Your task to perform on an android device: Search for logitech g903 on walmart.com, select the first entry, and add it to the cart. Image 0: 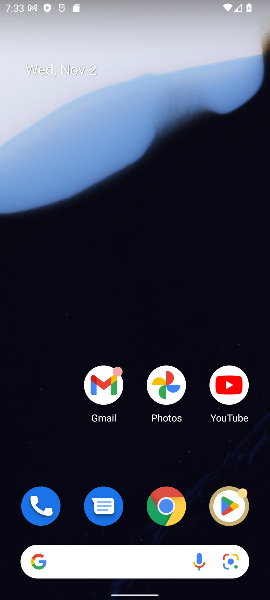
Step 0: click (84, 559)
Your task to perform on an android device: Search for logitech g903 on walmart.com, select the first entry, and add it to the cart. Image 1: 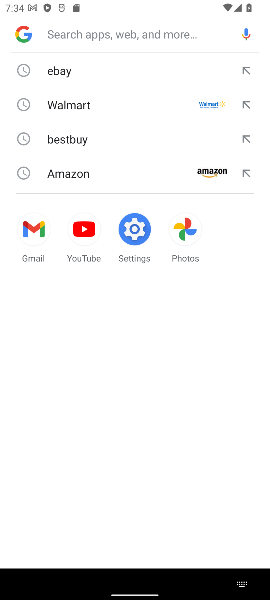
Step 1: type "walmart.com"
Your task to perform on an android device: Search for logitech g903 on walmart.com, select the first entry, and add it to the cart. Image 2: 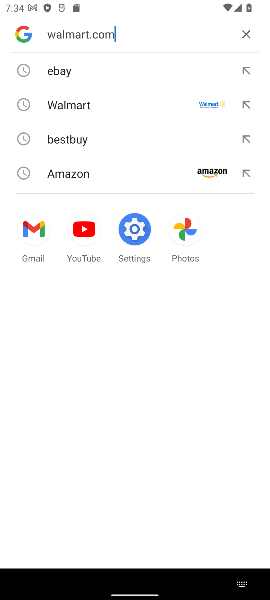
Step 2: type ""
Your task to perform on an android device: Search for logitech g903 on walmart.com, select the first entry, and add it to the cart. Image 3: 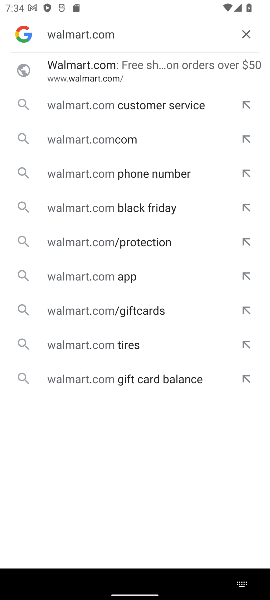
Step 3: press enter
Your task to perform on an android device: Search for logitech g903 on walmart.com, select the first entry, and add it to the cart. Image 4: 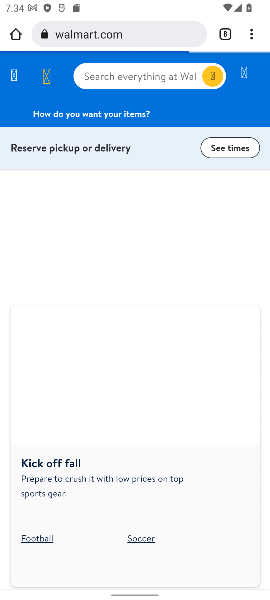
Step 4: press enter
Your task to perform on an android device: Search for logitech g903 on walmart.com, select the first entry, and add it to the cart. Image 5: 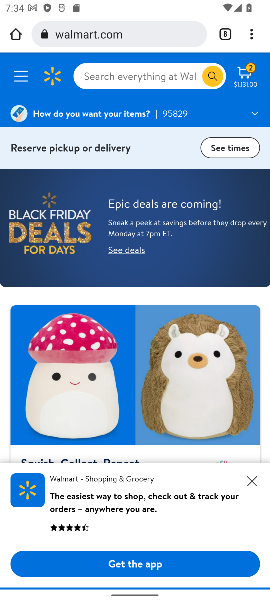
Step 5: click (248, 480)
Your task to perform on an android device: Search for logitech g903 on walmart.com, select the first entry, and add it to the cart. Image 6: 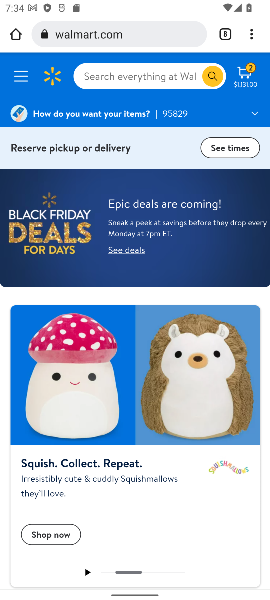
Step 6: click (123, 81)
Your task to perform on an android device: Search for logitech g903 on walmart.com, select the first entry, and add it to the cart. Image 7: 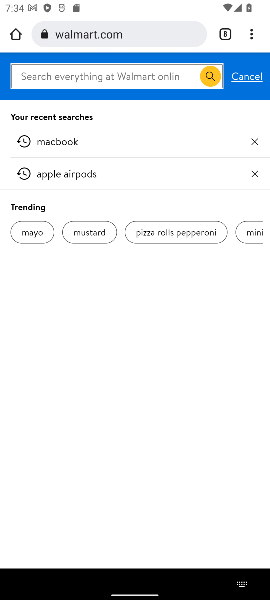
Step 7: type "logitech g903"
Your task to perform on an android device: Search for logitech g903 on walmart.com, select the first entry, and add it to the cart. Image 8: 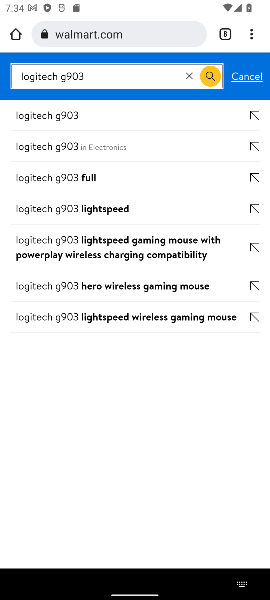
Step 8: press enter
Your task to perform on an android device: Search for logitech g903 on walmart.com, select the first entry, and add it to the cart. Image 9: 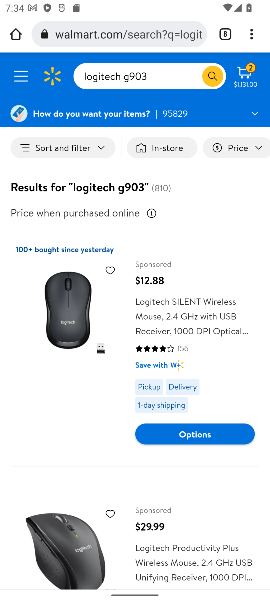
Step 9: click (215, 433)
Your task to perform on an android device: Search for logitech g903 on walmart.com, select the first entry, and add it to the cart. Image 10: 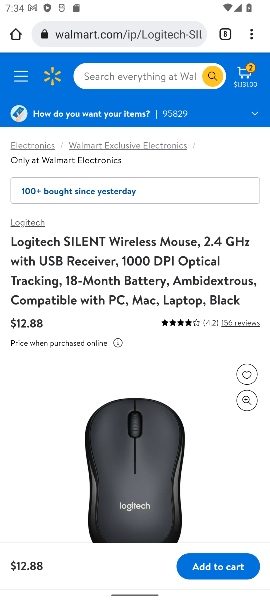
Step 10: click (229, 562)
Your task to perform on an android device: Search for logitech g903 on walmart.com, select the first entry, and add it to the cart. Image 11: 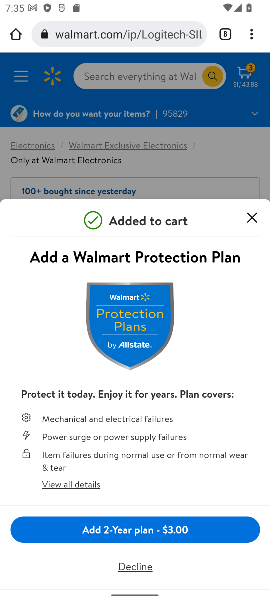
Step 11: click (247, 223)
Your task to perform on an android device: Search for logitech g903 on walmart.com, select the first entry, and add it to the cart. Image 12: 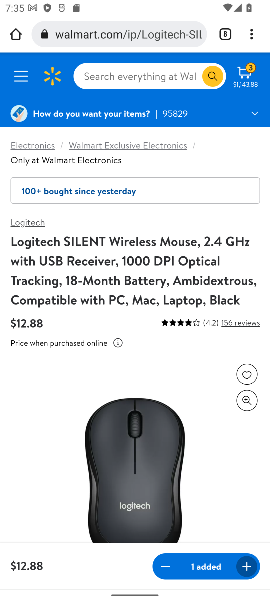
Step 12: click (253, 218)
Your task to perform on an android device: Search for logitech g903 on walmart.com, select the first entry, and add it to the cart. Image 13: 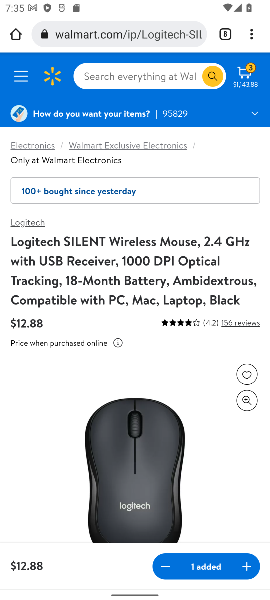
Step 13: drag from (191, 496) to (192, 241)
Your task to perform on an android device: Search for logitech g903 on walmart.com, select the first entry, and add it to the cart. Image 14: 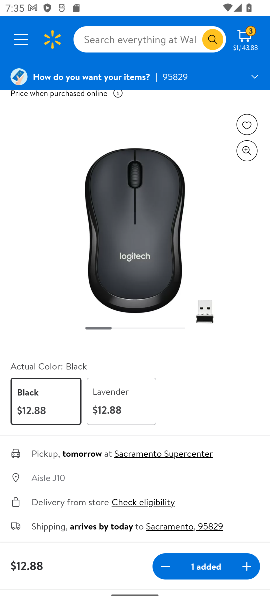
Step 14: click (247, 564)
Your task to perform on an android device: Search for logitech g903 on walmart.com, select the first entry, and add it to the cart. Image 15: 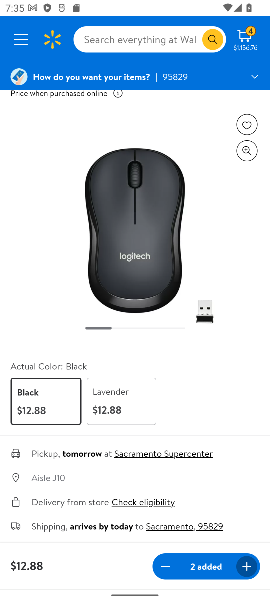
Step 15: task complete